Your task to perform on an android device: turn smart compose on in the gmail app Image 0: 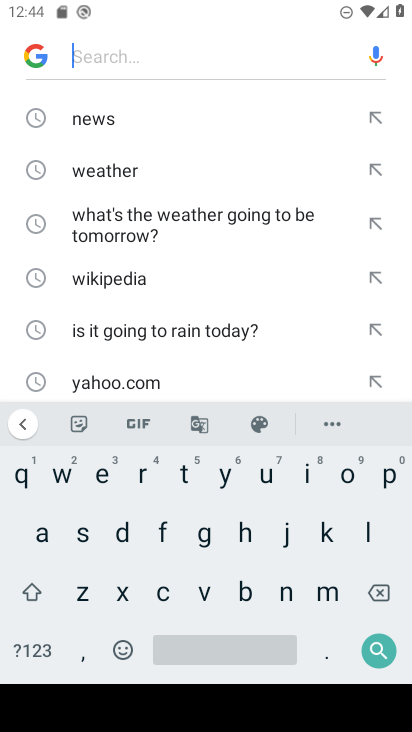
Step 0: press home button
Your task to perform on an android device: turn smart compose on in the gmail app Image 1: 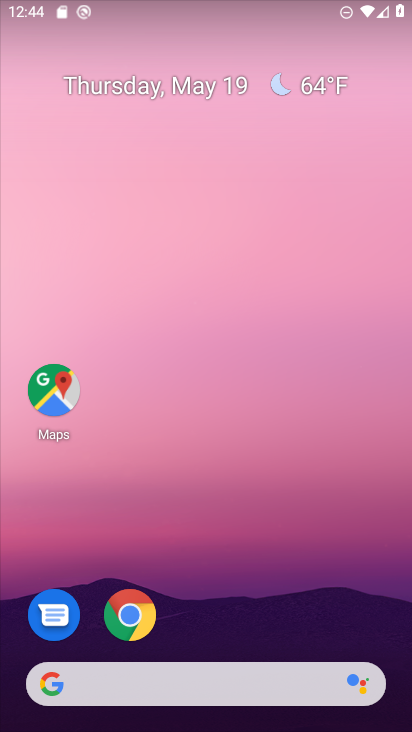
Step 1: drag from (272, 702) to (250, 298)
Your task to perform on an android device: turn smart compose on in the gmail app Image 2: 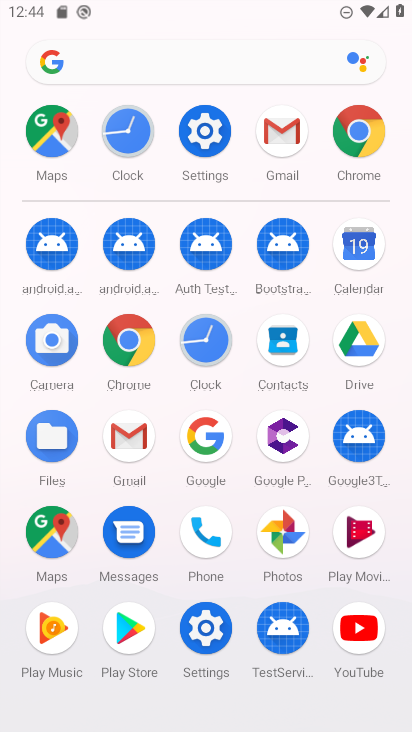
Step 2: click (112, 449)
Your task to perform on an android device: turn smart compose on in the gmail app Image 3: 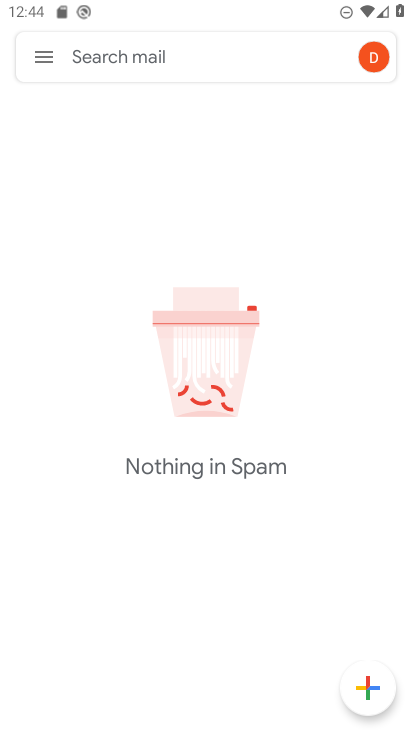
Step 3: click (48, 49)
Your task to perform on an android device: turn smart compose on in the gmail app Image 4: 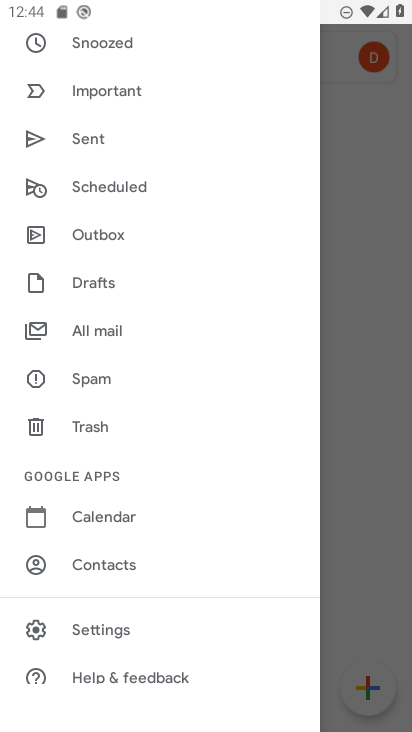
Step 4: click (130, 624)
Your task to perform on an android device: turn smart compose on in the gmail app Image 5: 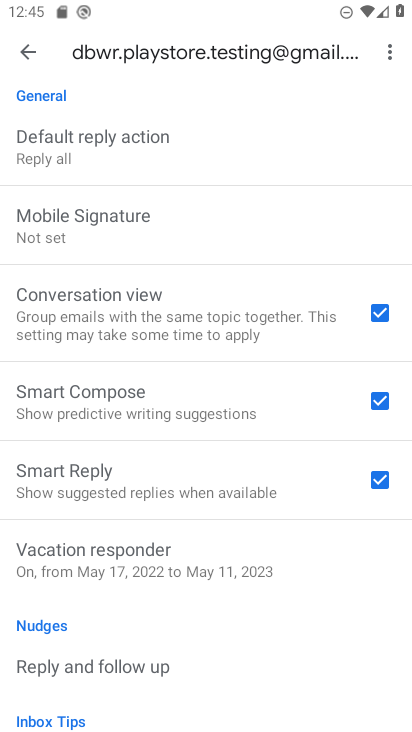
Step 5: click (260, 415)
Your task to perform on an android device: turn smart compose on in the gmail app Image 6: 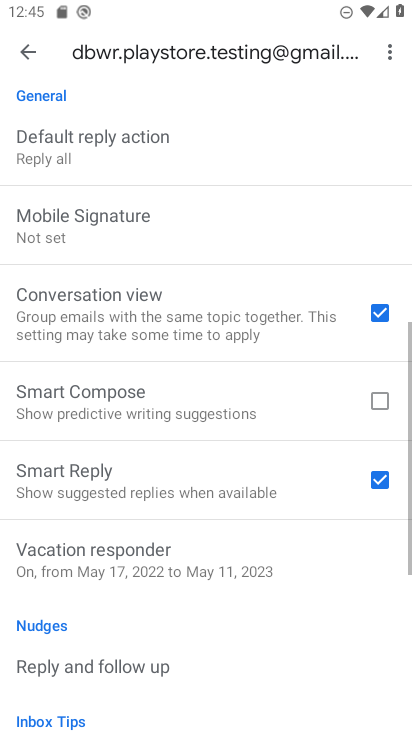
Step 6: click (260, 415)
Your task to perform on an android device: turn smart compose on in the gmail app Image 7: 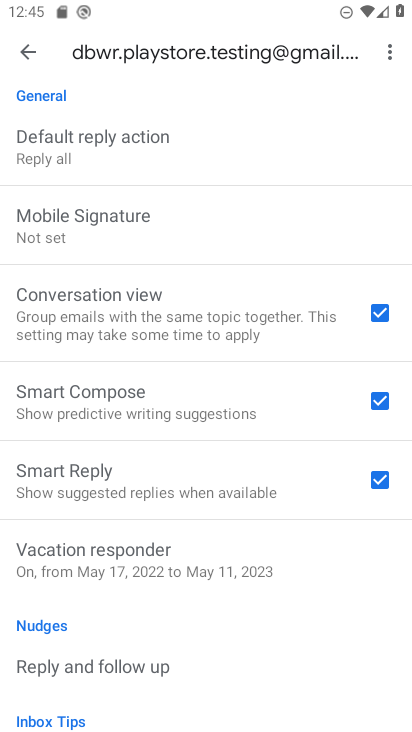
Step 7: task complete